Your task to perform on an android device: toggle javascript in the chrome app Image 0: 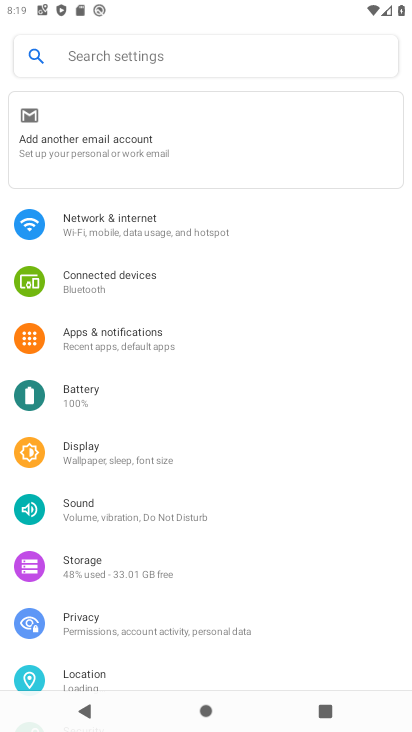
Step 0: press home button
Your task to perform on an android device: toggle javascript in the chrome app Image 1: 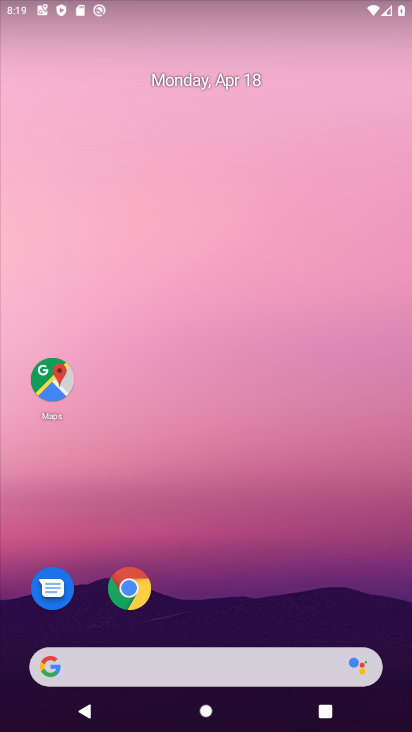
Step 1: drag from (249, 579) to (263, 113)
Your task to perform on an android device: toggle javascript in the chrome app Image 2: 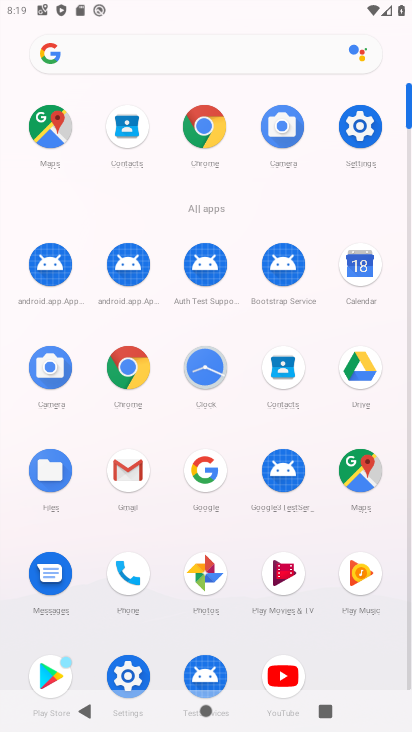
Step 2: click (212, 129)
Your task to perform on an android device: toggle javascript in the chrome app Image 3: 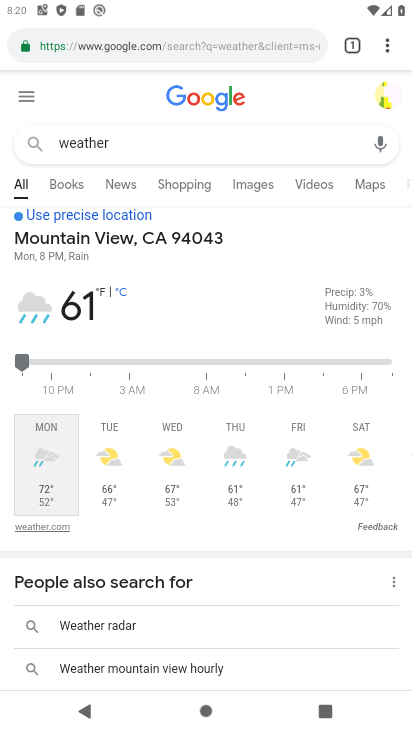
Step 3: click (384, 42)
Your task to perform on an android device: toggle javascript in the chrome app Image 4: 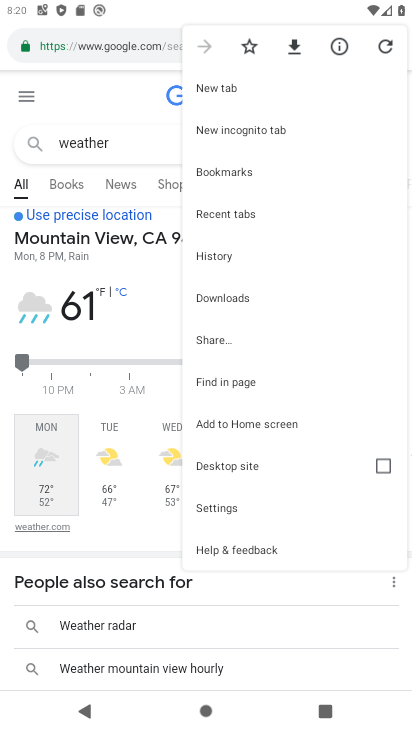
Step 4: click (227, 509)
Your task to perform on an android device: toggle javascript in the chrome app Image 5: 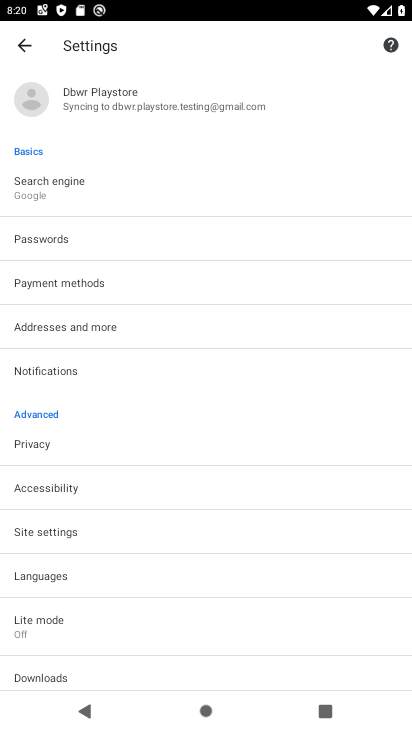
Step 5: click (57, 531)
Your task to perform on an android device: toggle javascript in the chrome app Image 6: 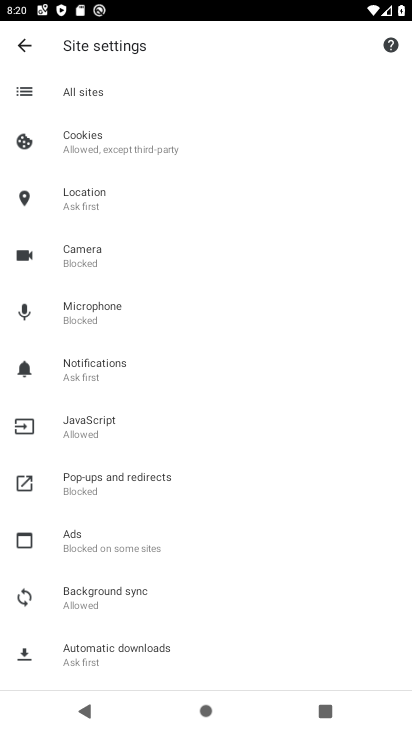
Step 6: click (76, 426)
Your task to perform on an android device: toggle javascript in the chrome app Image 7: 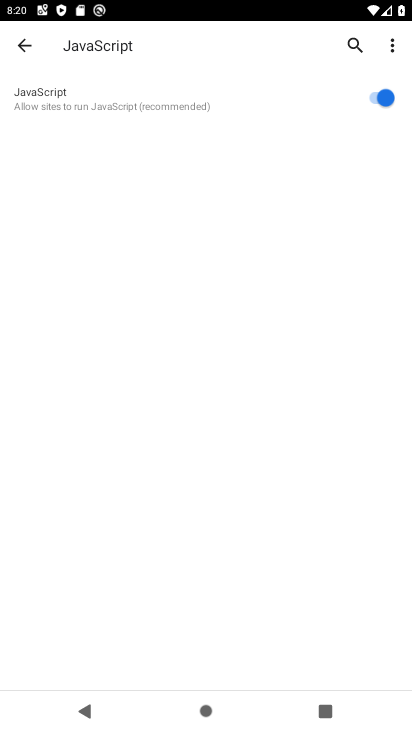
Step 7: click (391, 97)
Your task to perform on an android device: toggle javascript in the chrome app Image 8: 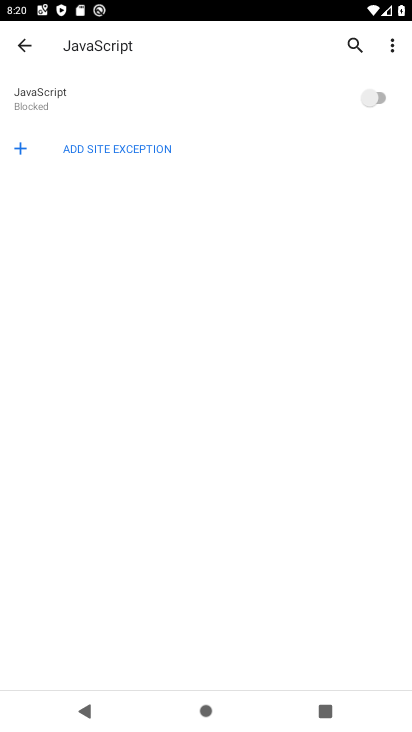
Step 8: task complete